Your task to perform on an android device: stop showing notifications on the lock screen Image 0: 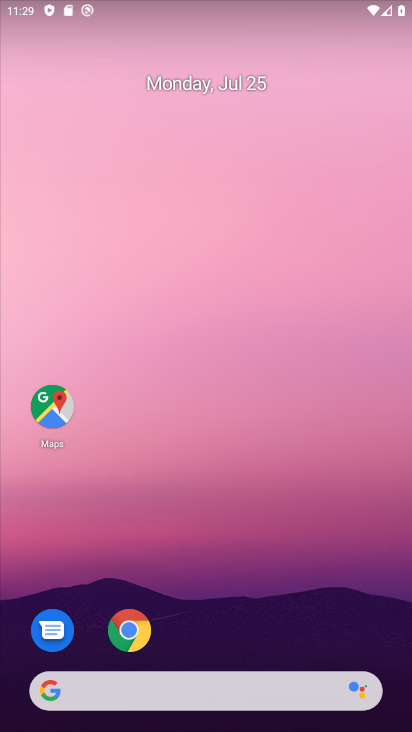
Step 0: drag from (197, 622) to (363, 14)
Your task to perform on an android device: stop showing notifications on the lock screen Image 1: 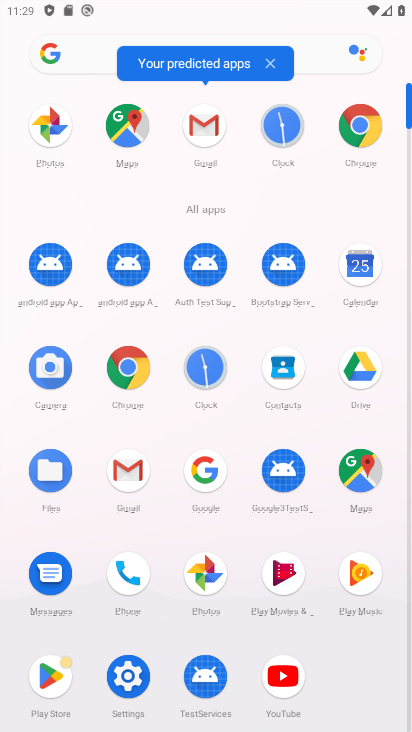
Step 1: click (122, 677)
Your task to perform on an android device: stop showing notifications on the lock screen Image 2: 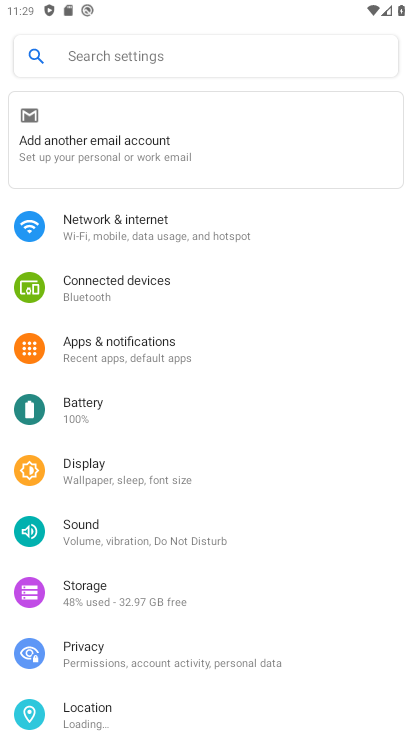
Step 2: click (95, 370)
Your task to perform on an android device: stop showing notifications on the lock screen Image 3: 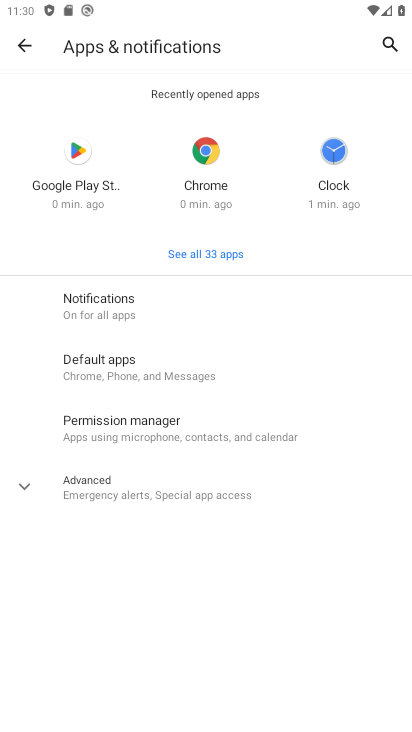
Step 3: click (25, 32)
Your task to perform on an android device: stop showing notifications on the lock screen Image 4: 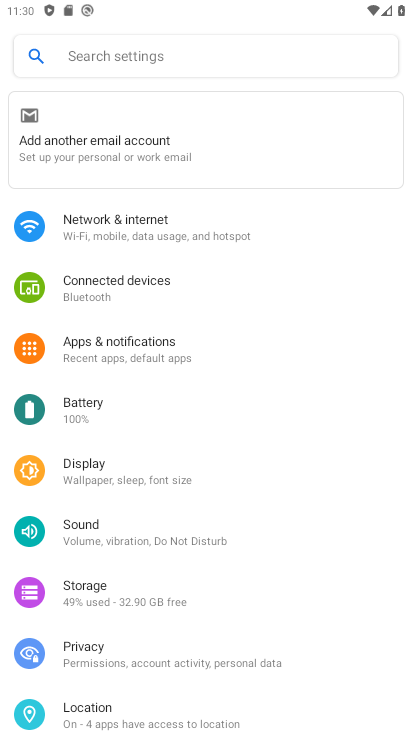
Step 4: click (102, 474)
Your task to perform on an android device: stop showing notifications on the lock screen Image 5: 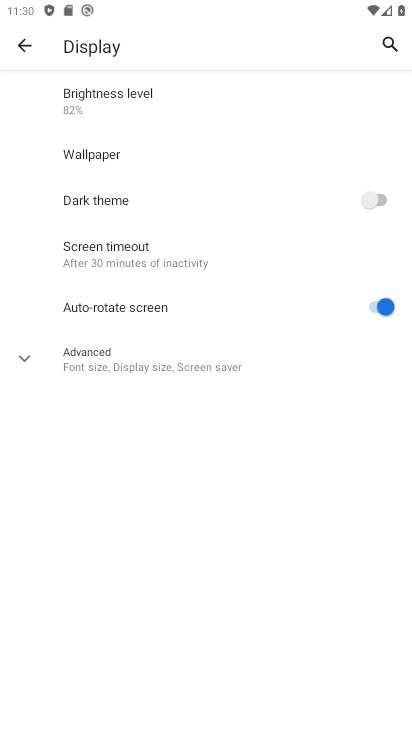
Step 5: click (103, 355)
Your task to perform on an android device: stop showing notifications on the lock screen Image 6: 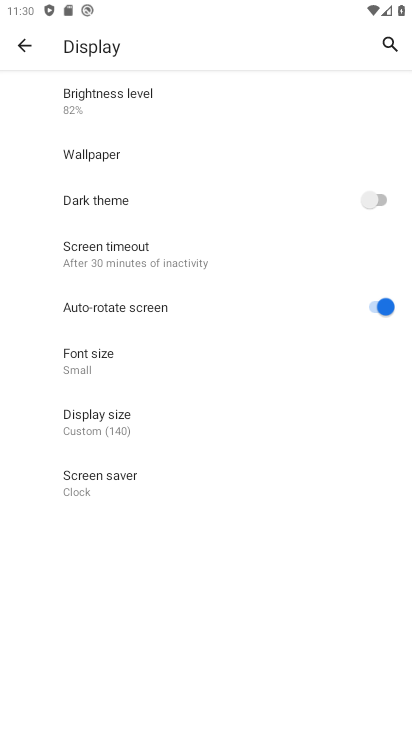
Step 6: click (106, 415)
Your task to perform on an android device: stop showing notifications on the lock screen Image 7: 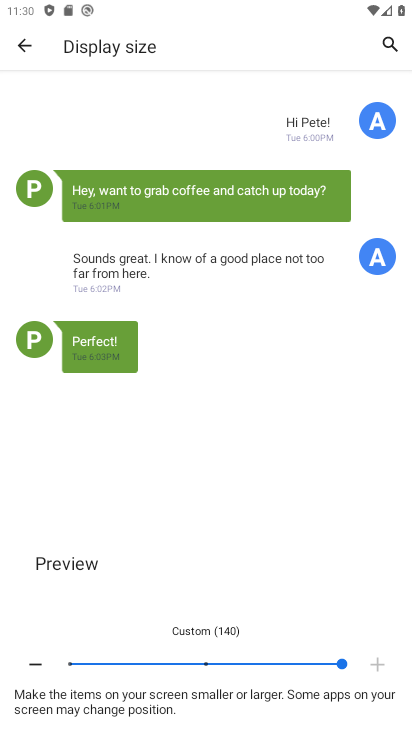
Step 7: click (204, 664)
Your task to perform on an android device: stop showing notifications on the lock screen Image 8: 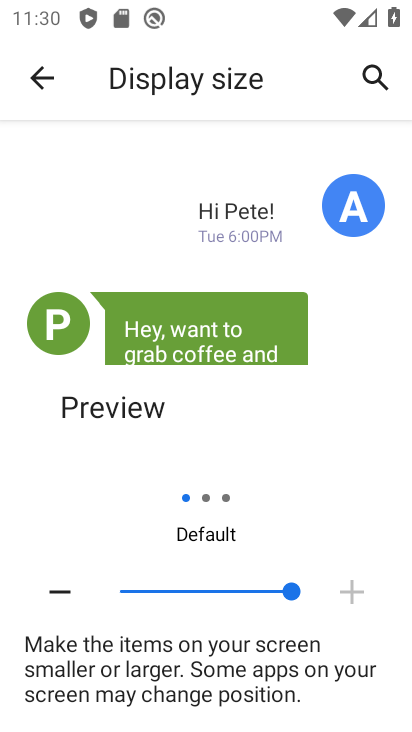
Step 8: click (22, 72)
Your task to perform on an android device: stop showing notifications on the lock screen Image 9: 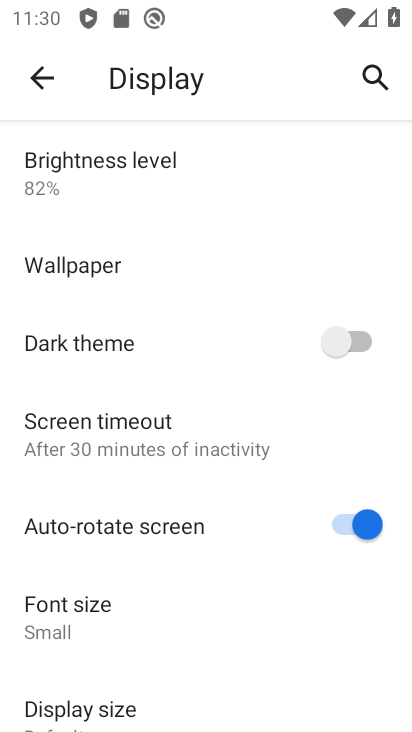
Step 9: click (36, 75)
Your task to perform on an android device: stop showing notifications on the lock screen Image 10: 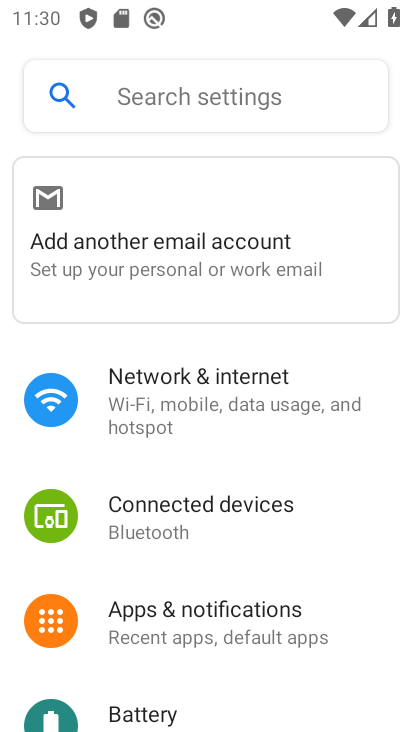
Step 10: click (184, 623)
Your task to perform on an android device: stop showing notifications on the lock screen Image 11: 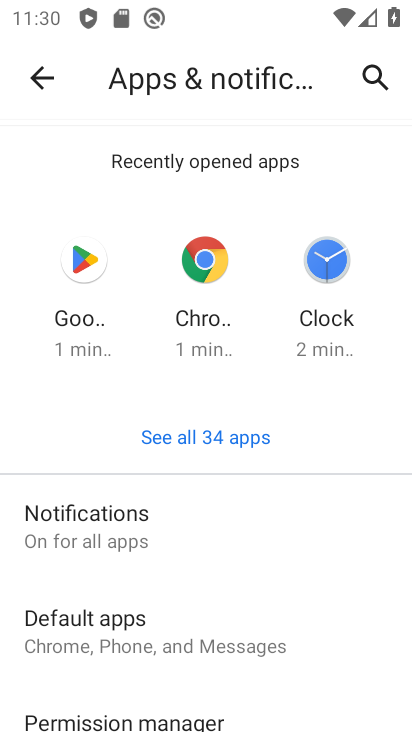
Step 11: drag from (186, 626) to (313, 113)
Your task to perform on an android device: stop showing notifications on the lock screen Image 12: 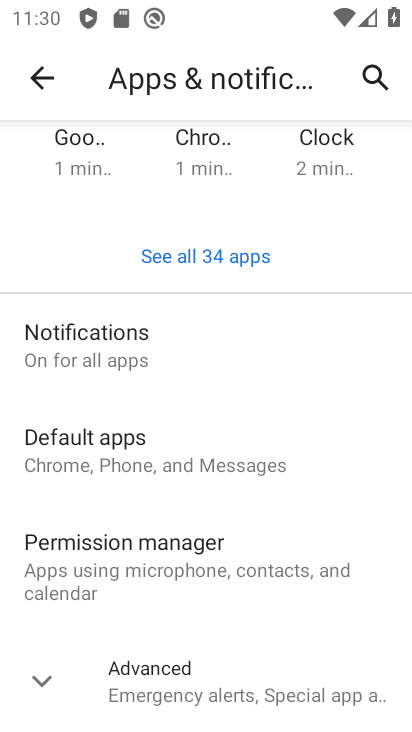
Step 12: click (145, 657)
Your task to perform on an android device: stop showing notifications on the lock screen Image 13: 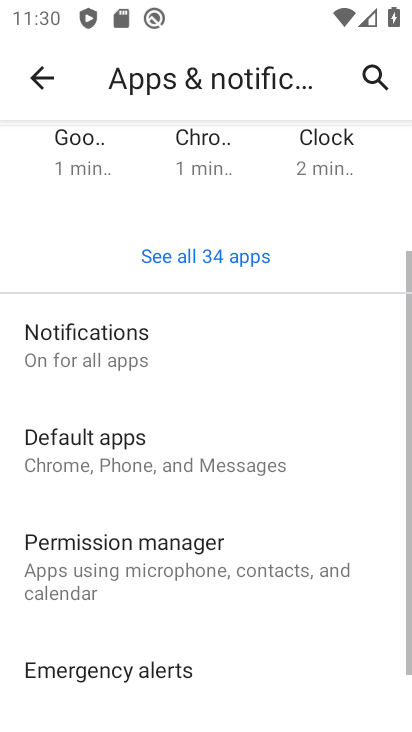
Step 13: drag from (158, 630) to (219, 110)
Your task to perform on an android device: stop showing notifications on the lock screen Image 14: 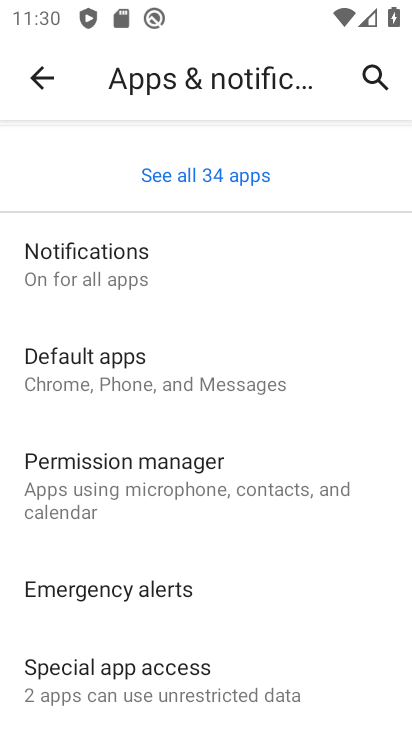
Step 14: click (172, 675)
Your task to perform on an android device: stop showing notifications on the lock screen Image 15: 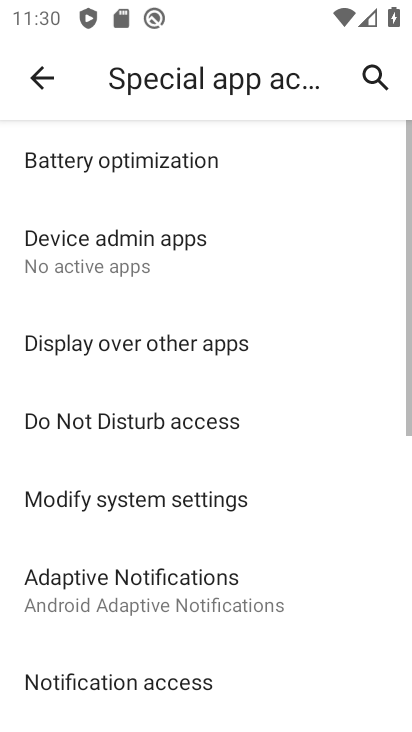
Step 15: drag from (145, 648) to (227, 351)
Your task to perform on an android device: stop showing notifications on the lock screen Image 16: 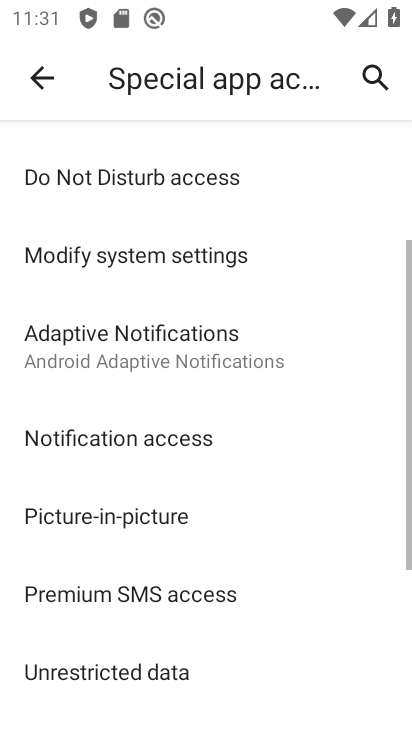
Step 16: click (44, 69)
Your task to perform on an android device: stop showing notifications on the lock screen Image 17: 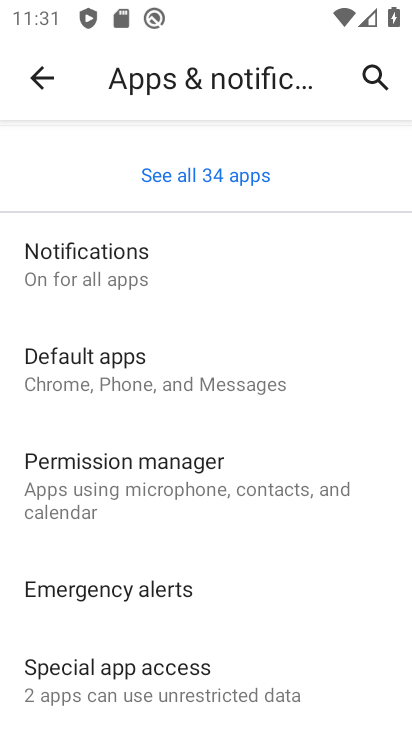
Step 17: click (39, 74)
Your task to perform on an android device: stop showing notifications on the lock screen Image 18: 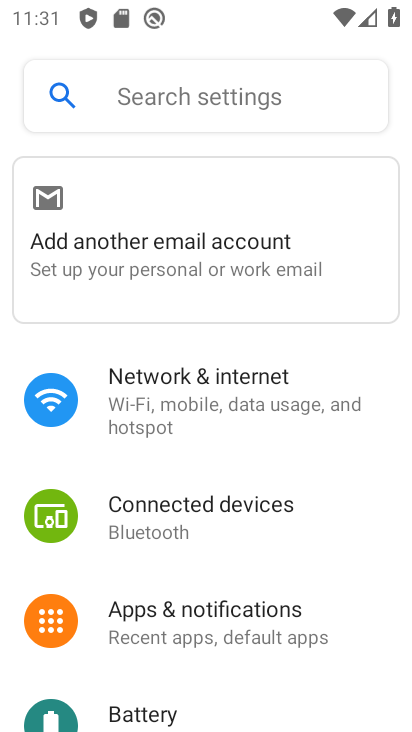
Step 18: click (196, 609)
Your task to perform on an android device: stop showing notifications on the lock screen Image 19: 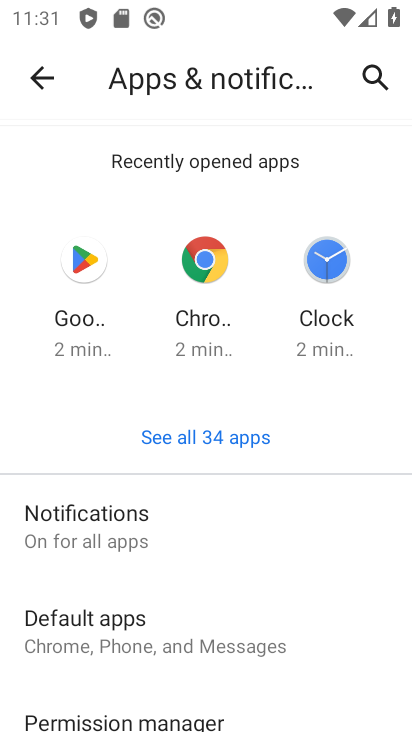
Step 19: click (129, 530)
Your task to perform on an android device: stop showing notifications on the lock screen Image 20: 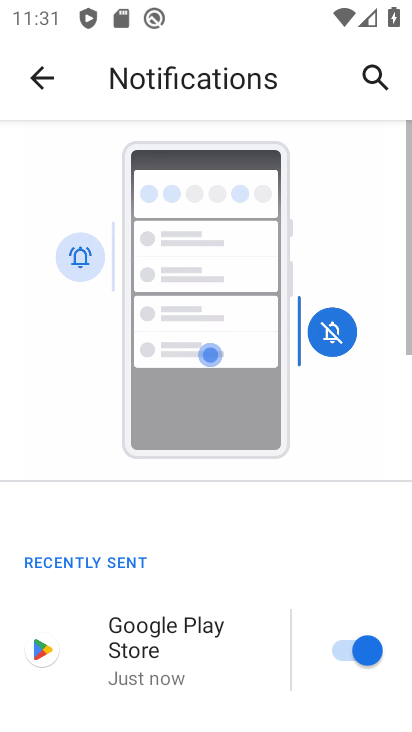
Step 20: drag from (147, 676) to (356, 3)
Your task to perform on an android device: stop showing notifications on the lock screen Image 21: 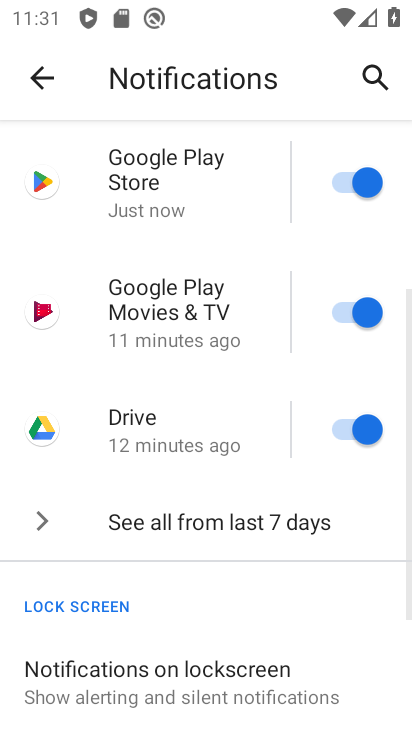
Step 21: click (130, 675)
Your task to perform on an android device: stop showing notifications on the lock screen Image 22: 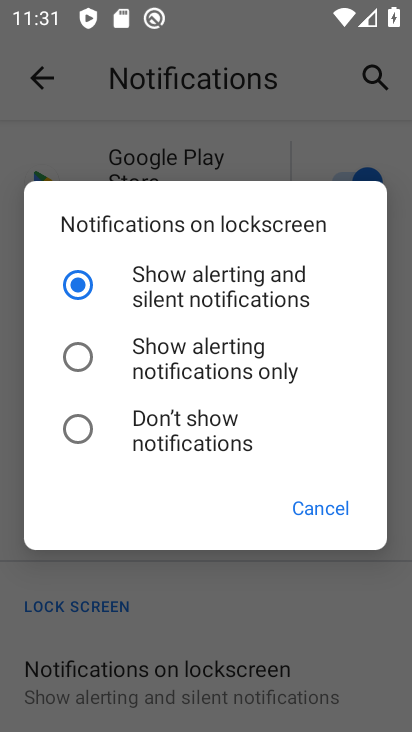
Step 22: click (123, 440)
Your task to perform on an android device: stop showing notifications on the lock screen Image 23: 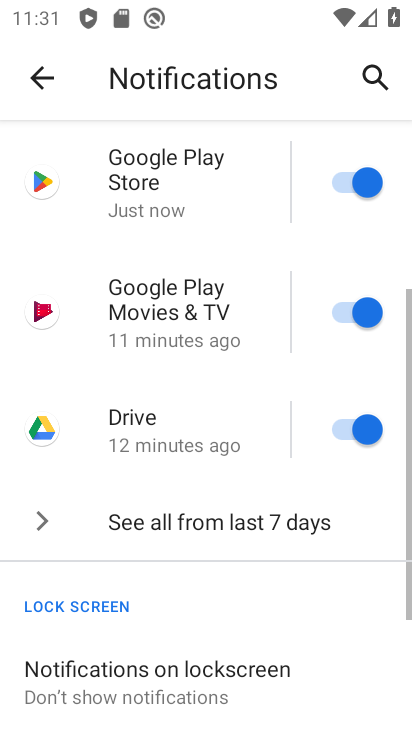
Step 23: task complete